Your task to perform on an android device: turn on notifications settings in the gmail app Image 0: 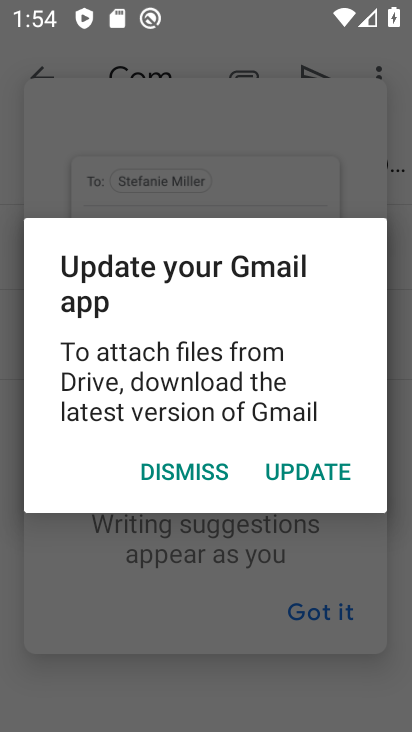
Step 0: press home button
Your task to perform on an android device: turn on notifications settings in the gmail app Image 1: 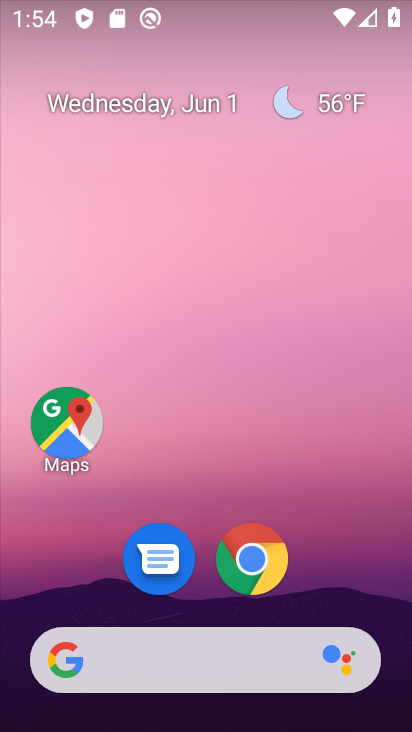
Step 1: drag from (311, 595) to (220, 90)
Your task to perform on an android device: turn on notifications settings in the gmail app Image 2: 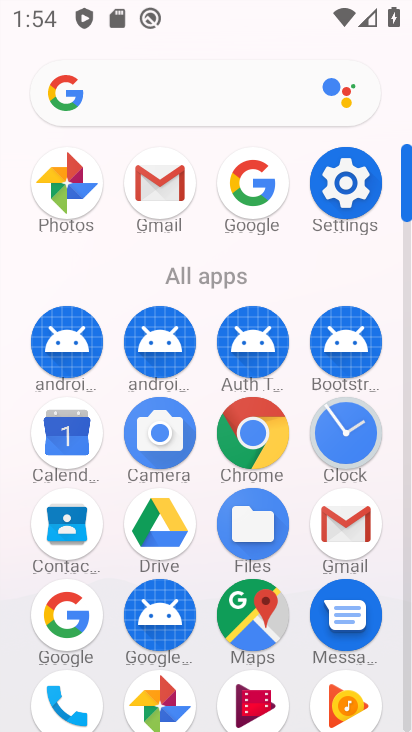
Step 2: click (157, 182)
Your task to perform on an android device: turn on notifications settings in the gmail app Image 3: 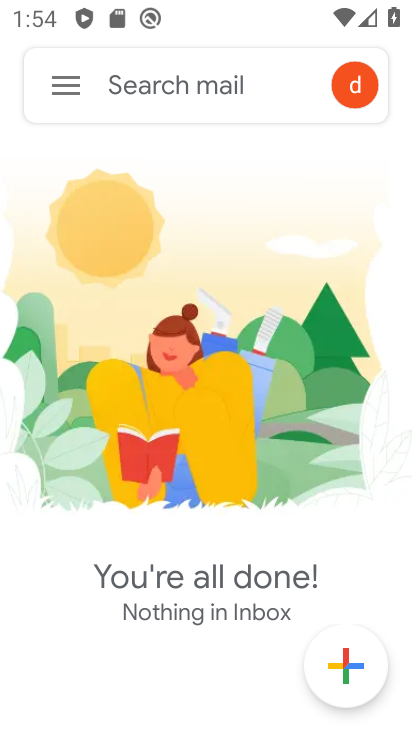
Step 3: click (66, 90)
Your task to perform on an android device: turn on notifications settings in the gmail app Image 4: 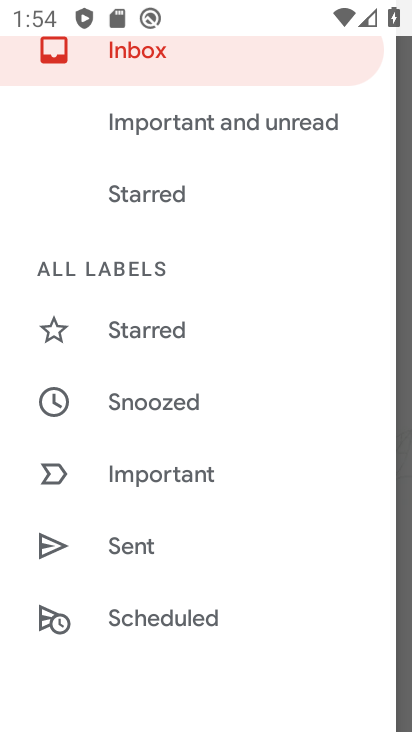
Step 4: drag from (159, 371) to (180, 300)
Your task to perform on an android device: turn on notifications settings in the gmail app Image 5: 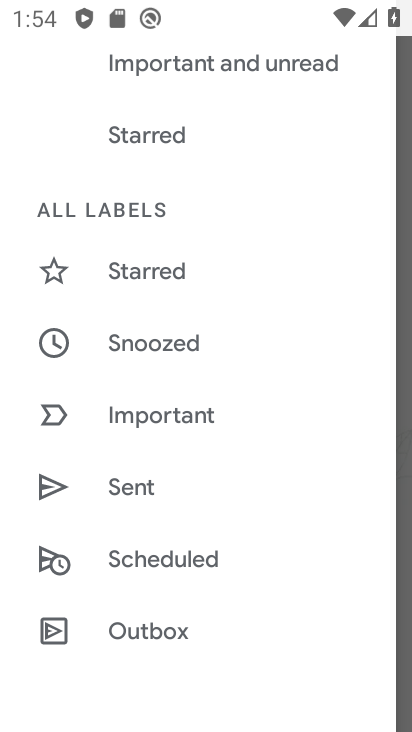
Step 5: drag from (145, 379) to (195, 306)
Your task to perform on an android device: turn on notifications settings in the gmail app Image 6: 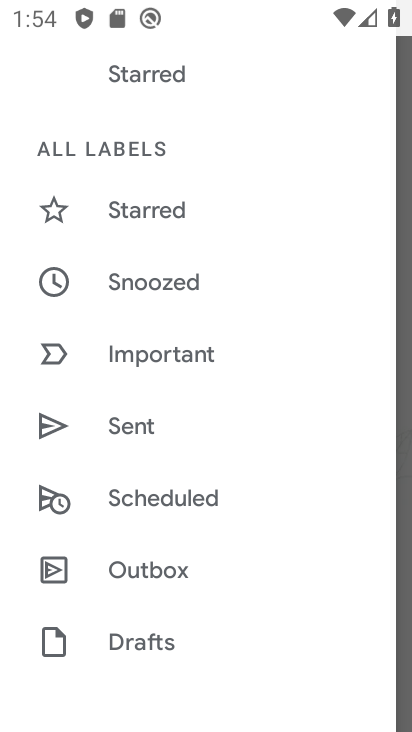
Step 6: drag from (156, 396) to (211, 318)
Your task to perform on an android device: turn on notifications settings in the gmail app Image 7: 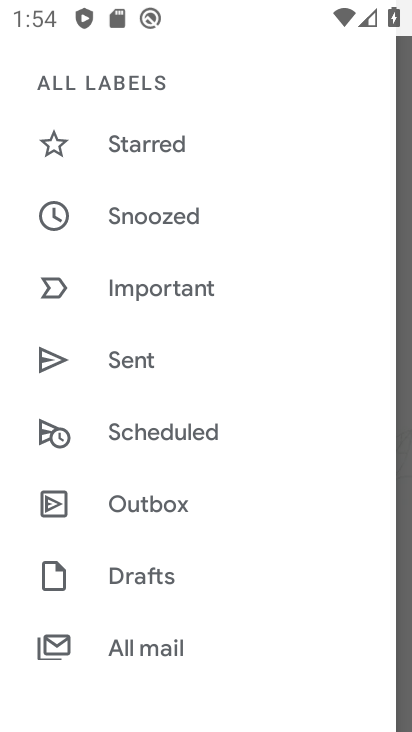
Step 7: drag from (144, 457) to (225, 366)
Your task to perform on an android device: turn on notifications settings in the gmail app Image 8: 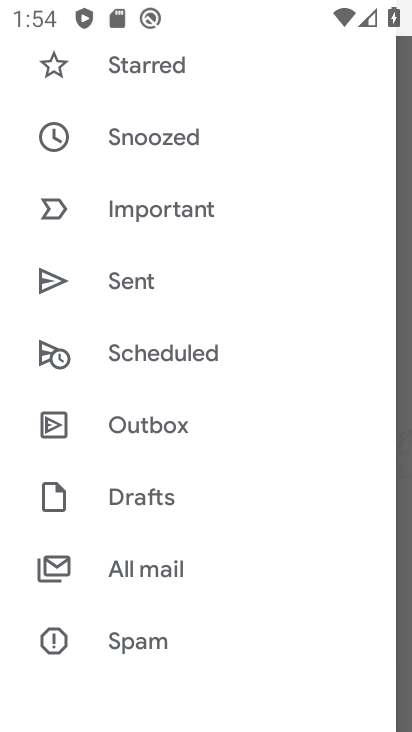
Step 8: drag from (151, 455) to (228, 366)
Your task to perform on an android device: turn on notifications settings in the gmail app Image 9: 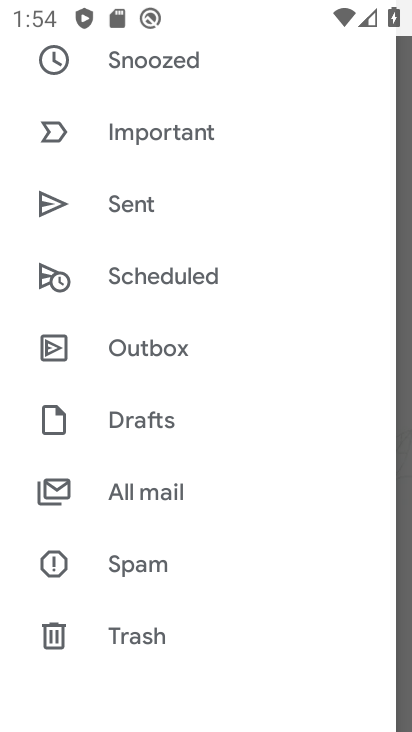
Step 9: drag from (151, 456) to (241, 362)
Your task to perform on an android device: turn on notifications settings in the gmail app Image 10: 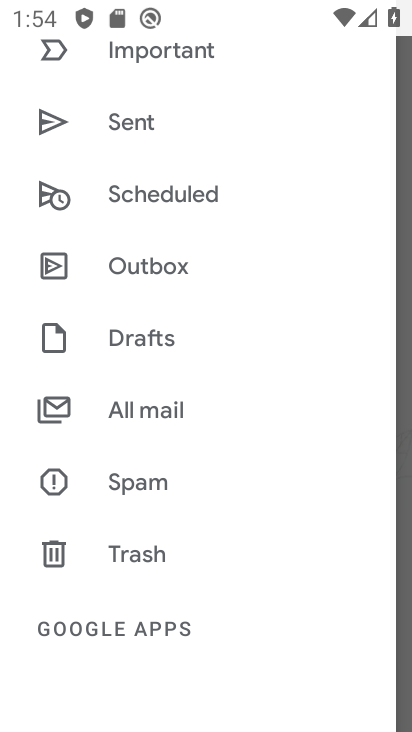
Step 10: drag from (135, 459) to (191, 386)
Your task to perform on an android device: turn on notifications settings in the gmail app Image 11: 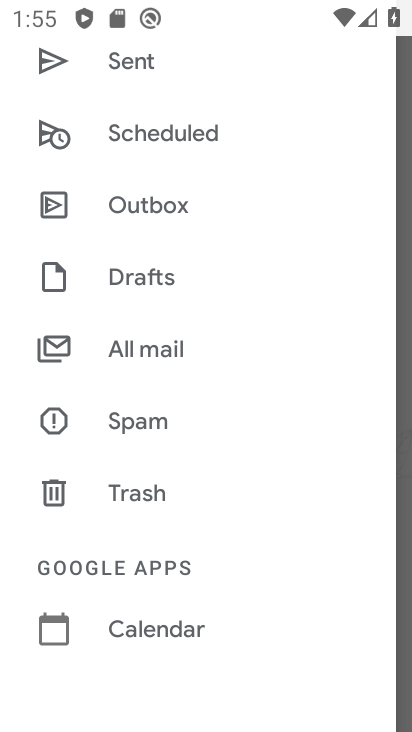
Step 11: drag from (145, 459) to (190, 397)
Your task to perform on an android device: turn on notifications settings in the gmail app Image 12: 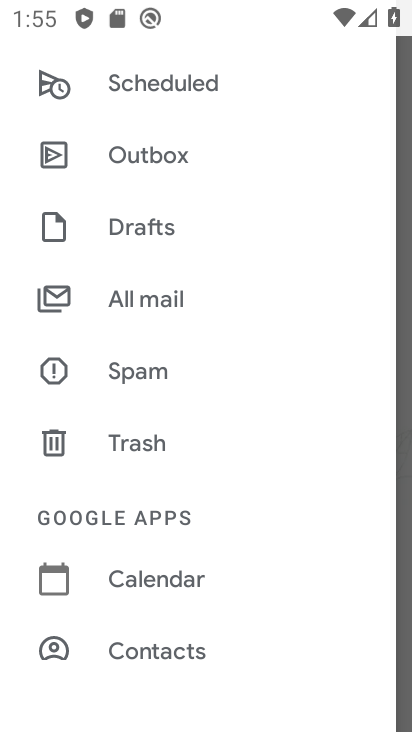
Step 12: drag from (139, 476) to (186, 402)
Your task to perform on an android device: turn on notifications settings in the gmail app Image 13: 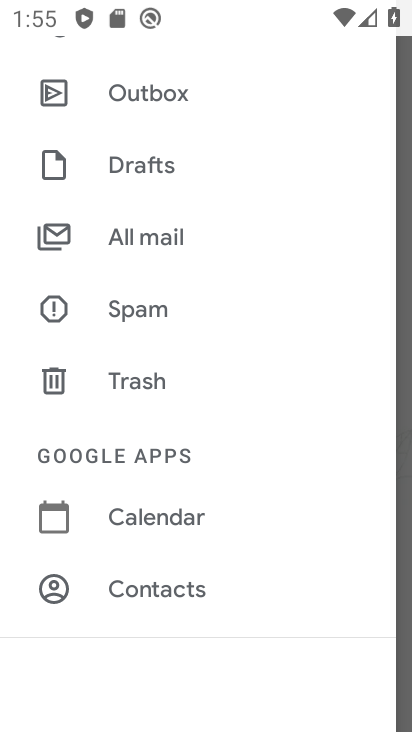
Step 13: drag from (146, 542) to (201, 431)
Your task to perform on an android device: turn on notifications settings in the gmail app Image 14: 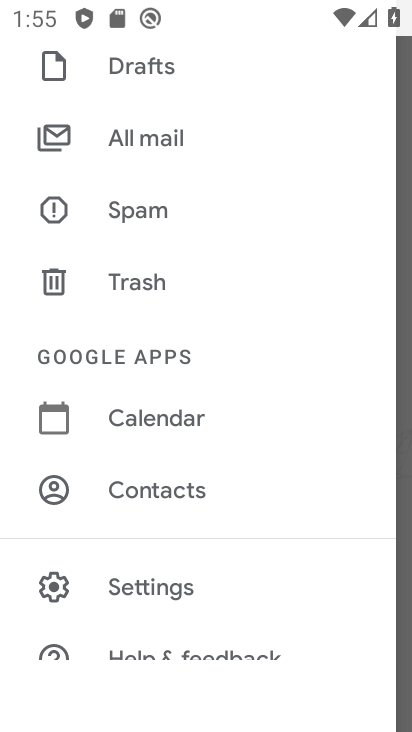
Step 14: click (167, 583)
Your task to perform on an android device: turn on notifications settings in the gmail app Image 15: 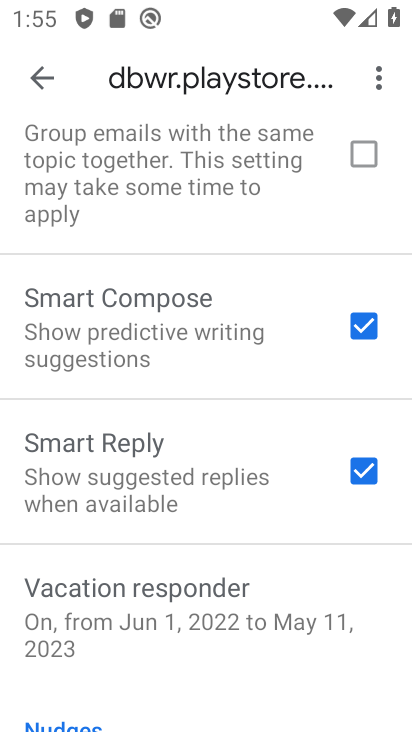
Step 15: drag from (225, 238) to (228, 369)
Your task to perform on an android device: turn on notifications settings in the gmail app Image 16: 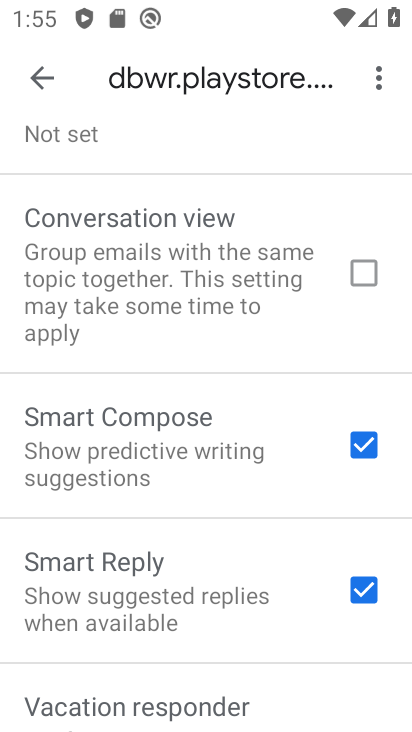
Step 16: drag from (218, 149) to (198, 293)
Your task to perform on an android device: turn on notifications settings in the gmail app Image 17: 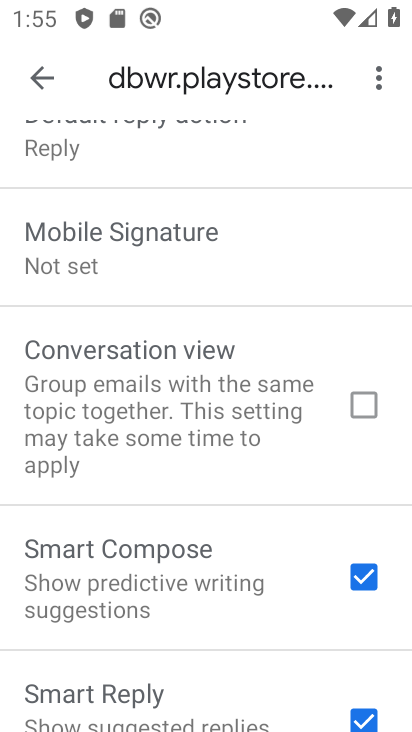
Step 17: drag from (203, 158) to (209, 307)
Your task to perform on an android device: turn on notifications settings in the gmail app Image 18: 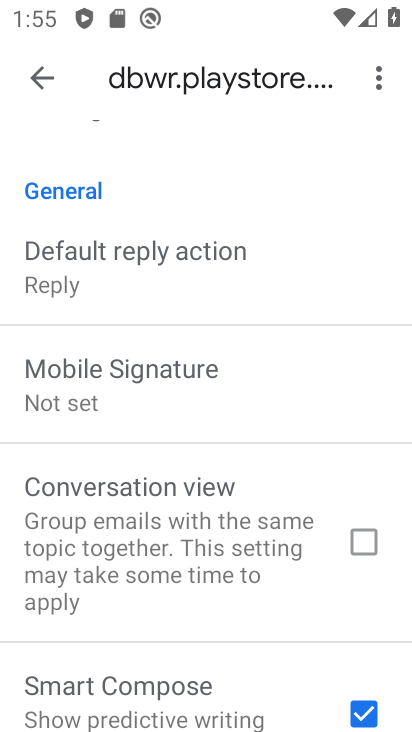
Step 18: drag from (223, 169) to (224, 290)
Your task to perform on an android device: turn on notifications settings in the gmail app Image 19: 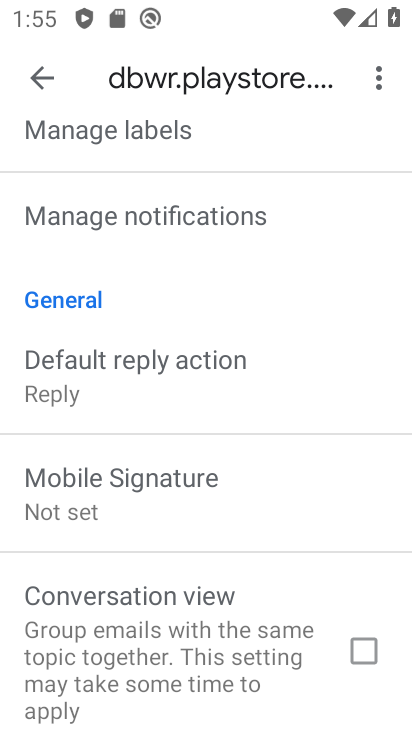
Step 19: click (242, 214)
Your task to perform on an android device: turn on notifications settings in the gmail app Image 20: 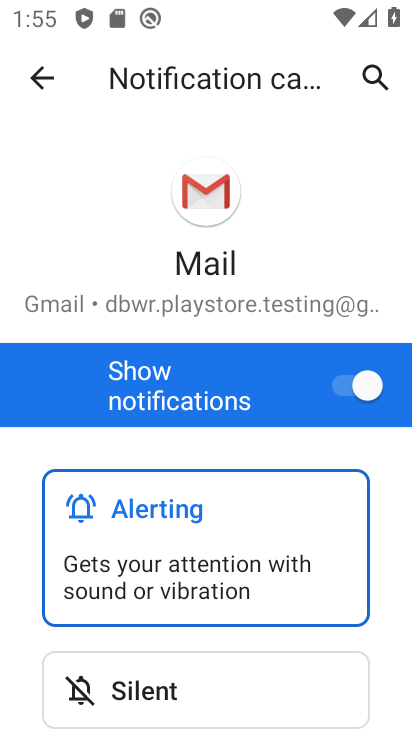
Step 20: task complete